Your task to perform on an android device: Go to Yahoo.com Image 0: 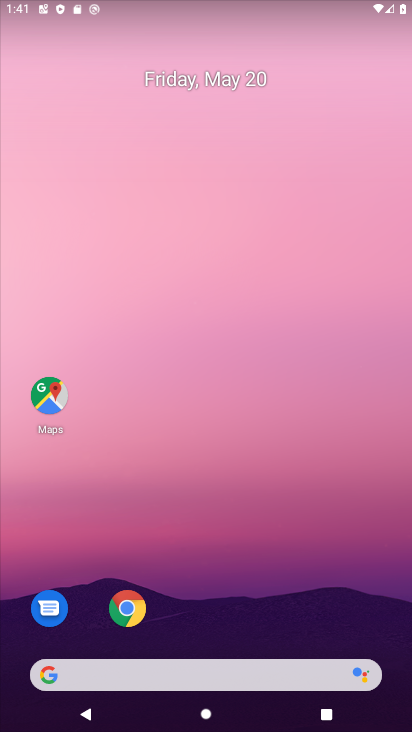
Step 0: click (137, 598)
Your task to perform on an android device: Go to Yahoo.com Image 1: 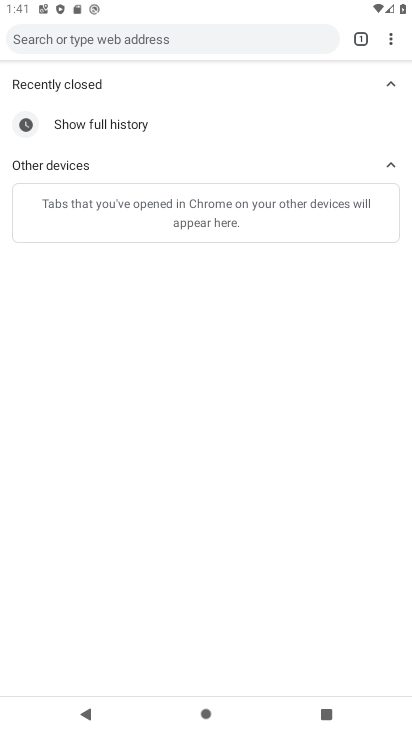
Step 1: click (363, 45)
Your task to perform on an android device: Go to Yahoo.com Image 2: 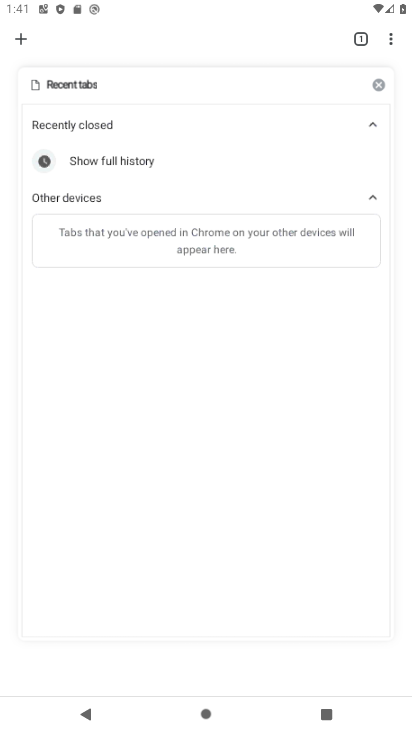
Step 2: click (25, 37)
Your task to perform on an android device: Go to Yahoo.com Image 3: 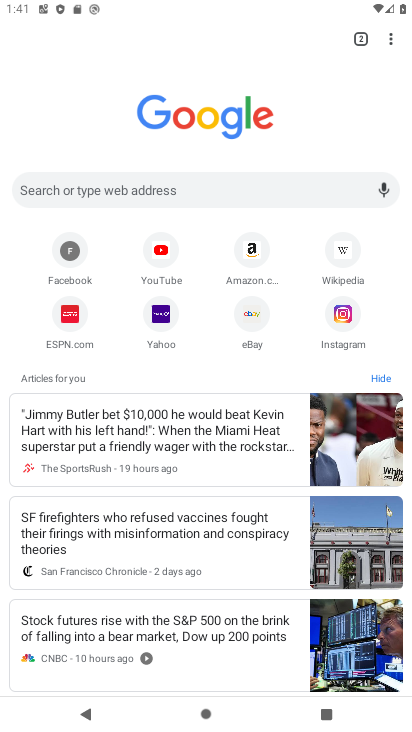
Step 3: click (159, 318)
Your task to perform on an android device: Go to Yahoo.com Image 4: 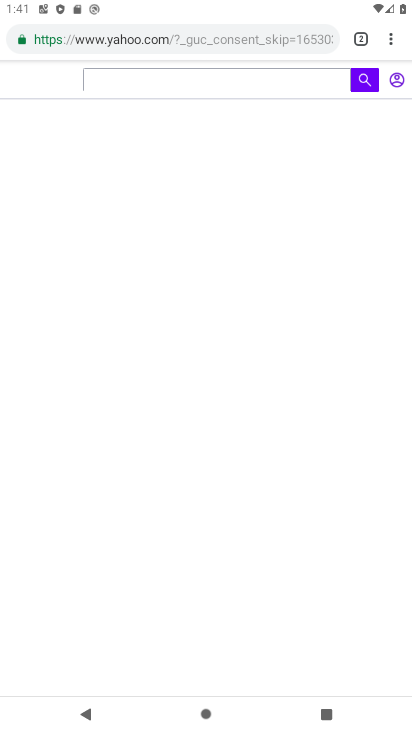
Step 4: task complete